Your task to perform on an android device: delete browsing data in the chrome app Image 0: 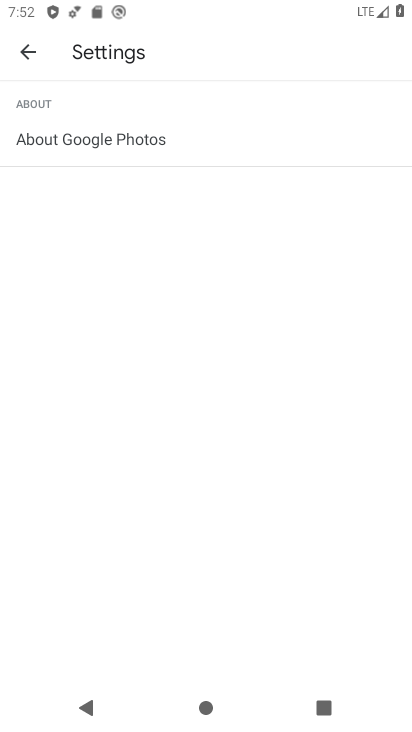
Step 0: press home button
Your task to perform on an android device: delete browsing data in the chrome app Image 1: 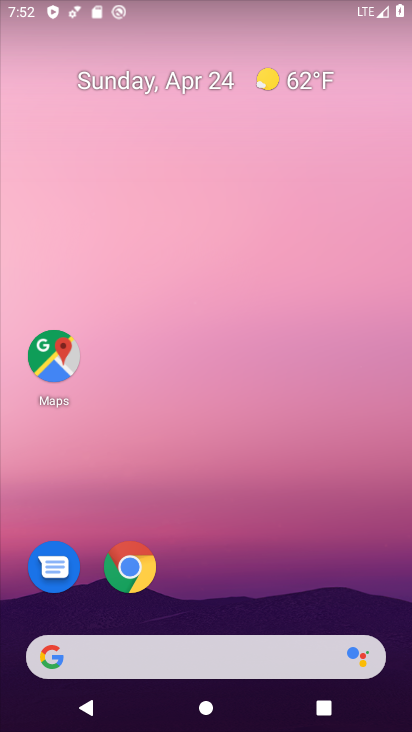
Step 1: click (127, 570)
Your task to perform on an android device: delete browsing data in the chrome app Image 2: 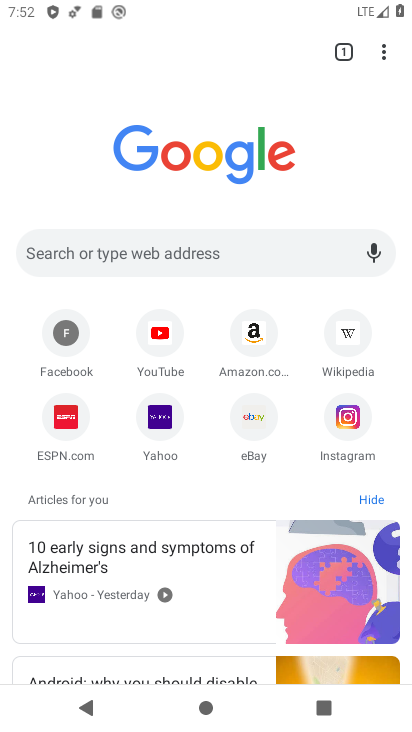
Step 2: click (388, 52)
Your task to perform on an android device: delete browsing data in the chrome app Image 3: 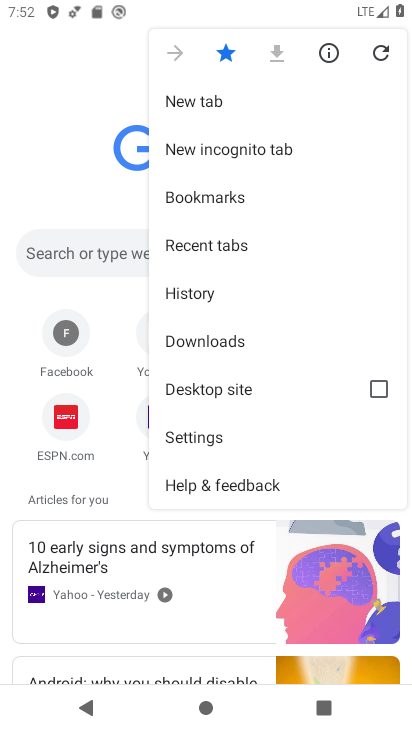
Step 3: click (206, 441)
Your task to perform on an android device: delete browsing data in the chrome app Image 4: 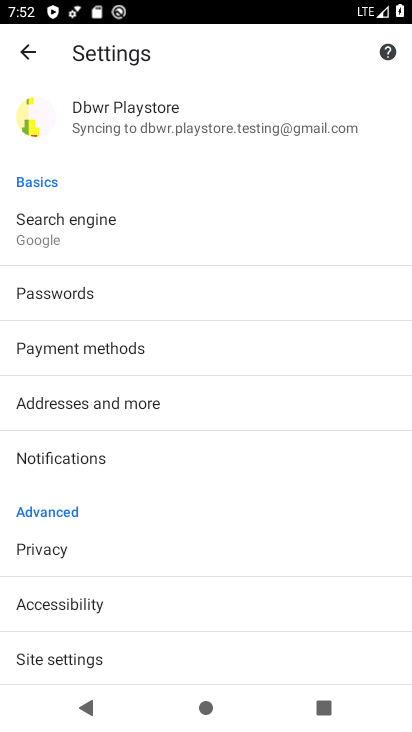
Step 4: click (61, 553)
Your task to perform on an android device: delete browsing data in the chrome app Image 5: 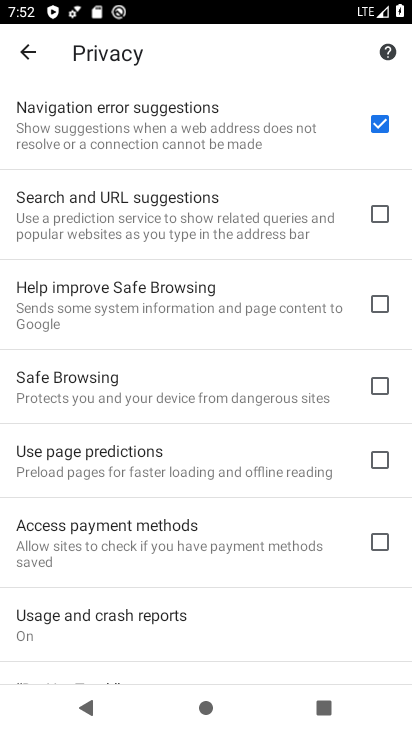
Step 5: drag from (93, 644) to (163, 544)
Your task to perform on an android device: delete browsing data in the chrome app Image 6: 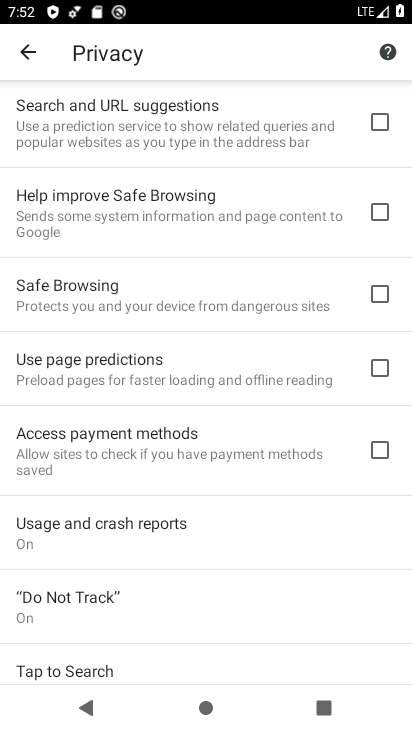
Step 6: drag from (162, 609) to (174, 497)
Your task to perform on an android device: delete browsing data in the chrome app Image 7: 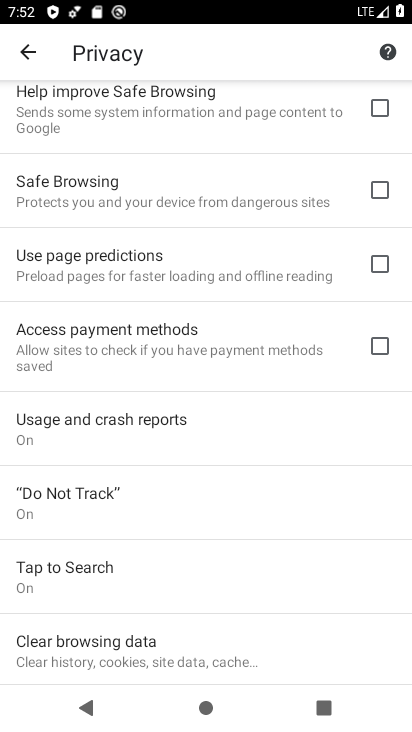
Step 7: click (145, 649)
Your task to perform on an android device: delete browsing data in the chrome app Image 8: 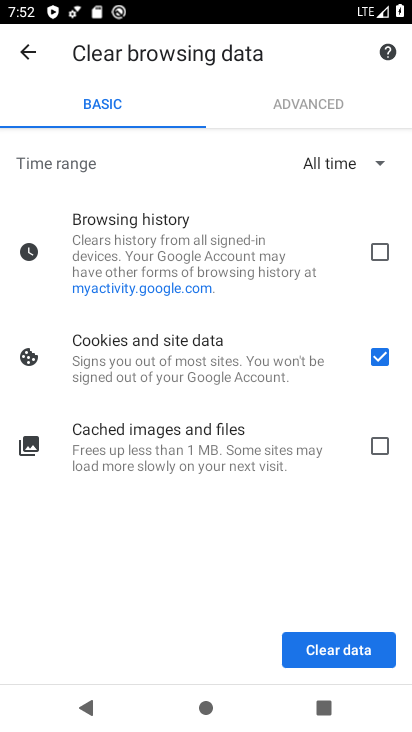
Step 8: click (387, 253)
Your task to perform on an android device: delete browsing data in the chrome app Image 9: 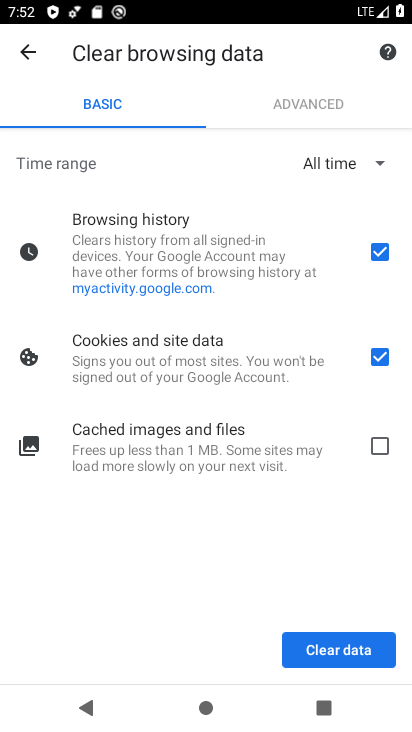
Step 9: click (368, 354)
Your task to perform on an android device: delete browsing data in the chrome app Image 10: 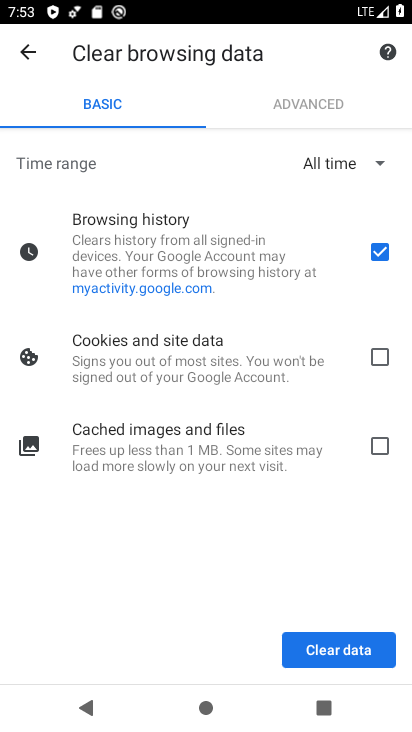
Step 10: click (332, 655)
Your task to perform on an android device: delete browsing data in the chrome app Image 11: 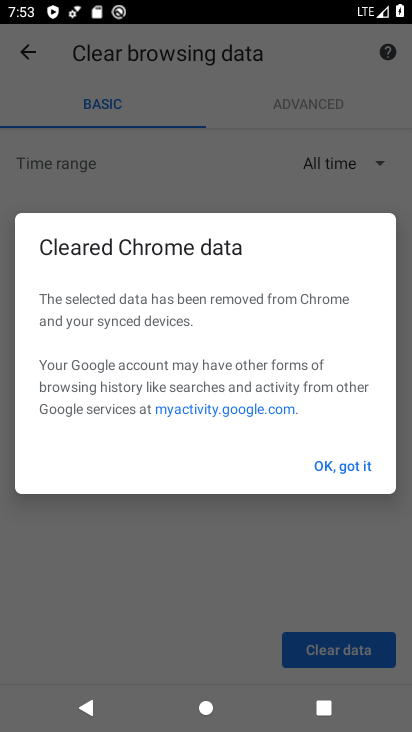
Step 11: click (352, 469)
Your task to perform on an android device: delete browsing data in the chrome app Image 12: 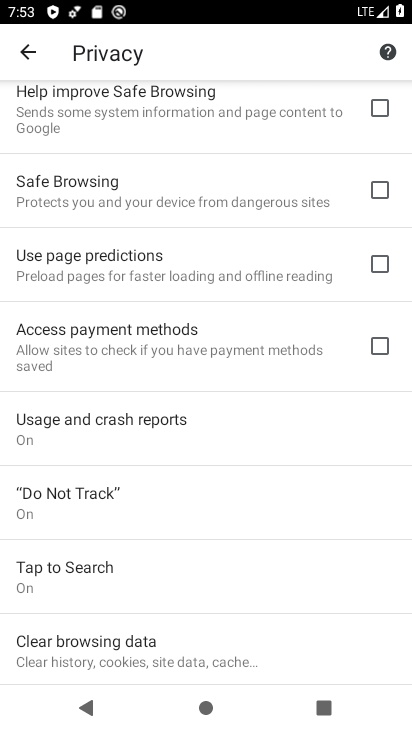
Step 12: task complete